Your task to perform on an android device: set an alarm Image 0: 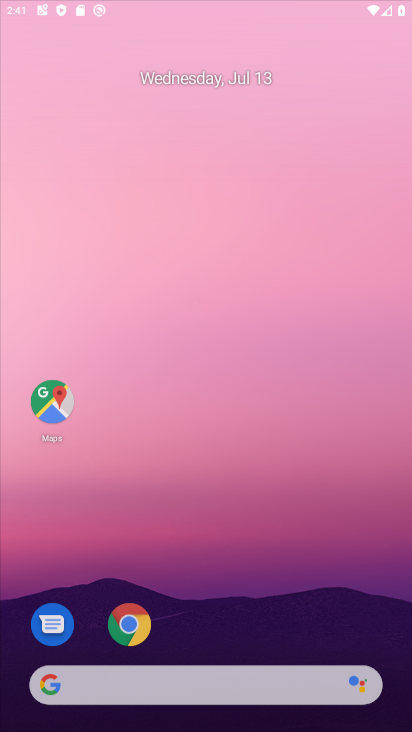
Step 0: click (313, 184)
Your task to perform on an android device: set an alarm Image 1: 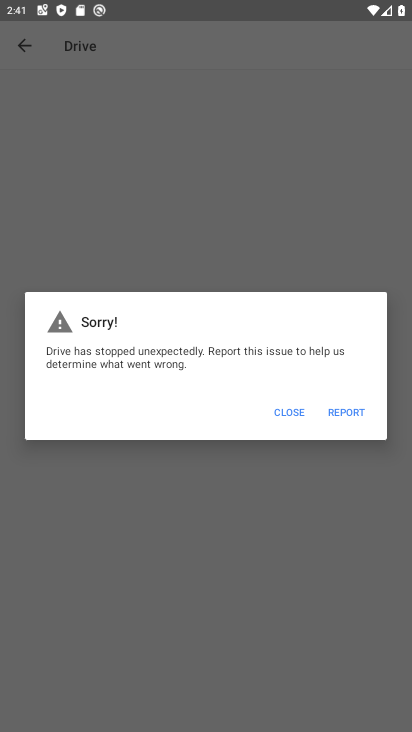
Step 1: press home button
Your task to perform on an android device: set an alarm Image 2: 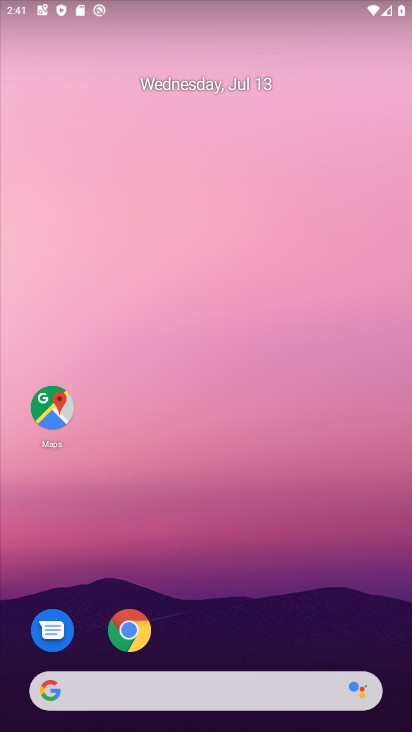
Step 2: drag from (344, 612) to (370, 173)
Your task to perform on an android device: set an alarm Image 3: 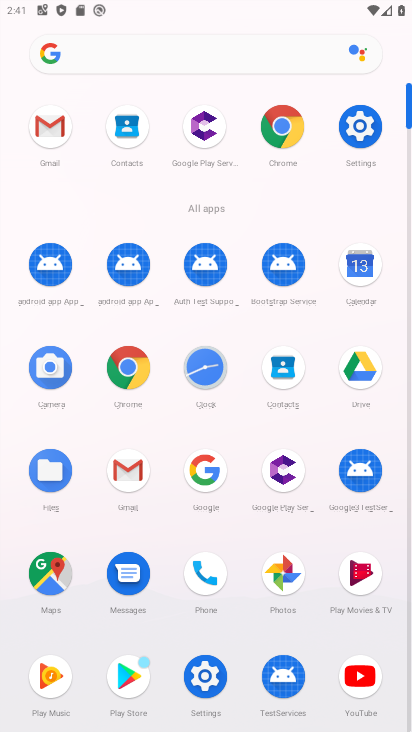
Step 3: click (209, 374)
Your task to perform on an android device: set an alarm Image 4: 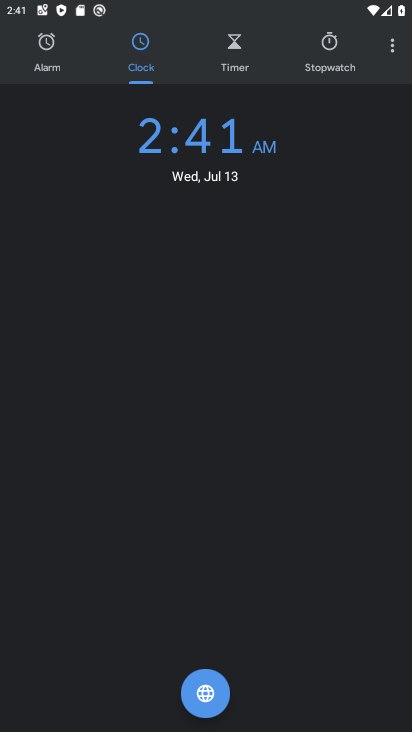
Step 4: click (56, 57)
Your task to perform on an android device: set an alarm Image 5: 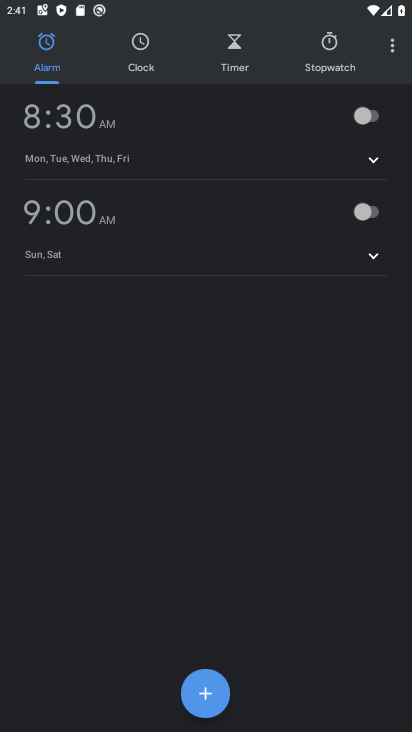
Step 5: click (221, 697)
Your task to perform on an android device: set an alarm Image 6: 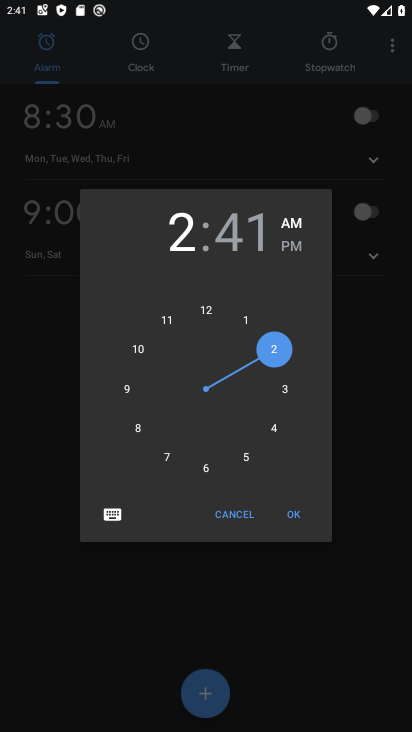
Step 6: click (298, 525)
Your task to perform on an android device: set an alarm Image 7: 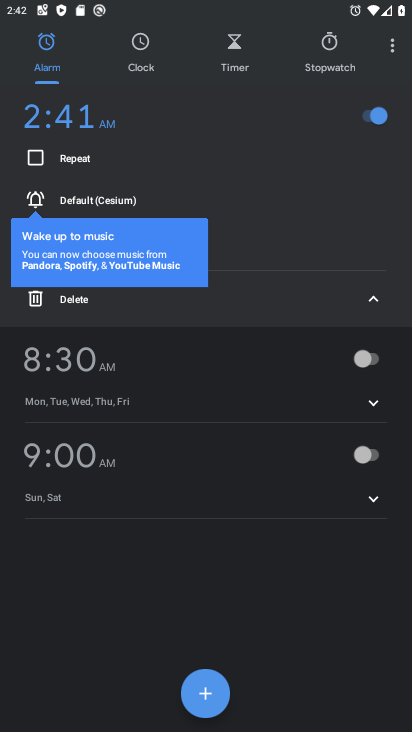
Step 7: task complete